Your task to perform on an android device: turn on wifi Image 0: 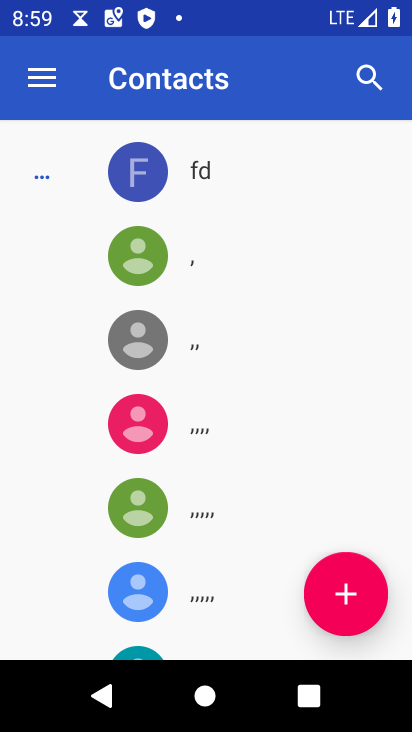
Step 0: press home button
Your task to perform on an android device: turn on wifi Image 1: 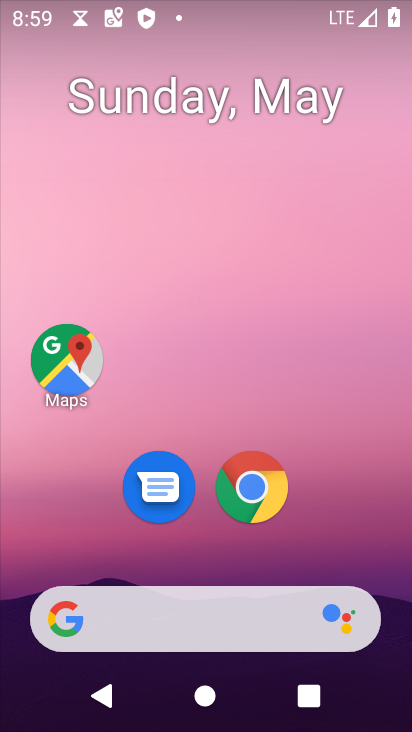
Step 1: drag from (383, 525) to (346, 93)
Your task to perform on an android device: turn on wifi Image 2: 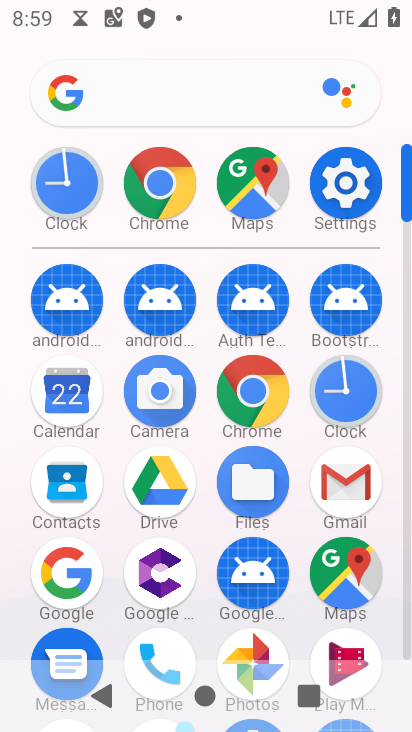
Step 2: click (338, 166)
Your task to perform on an android device: turn on wifi Image 3: 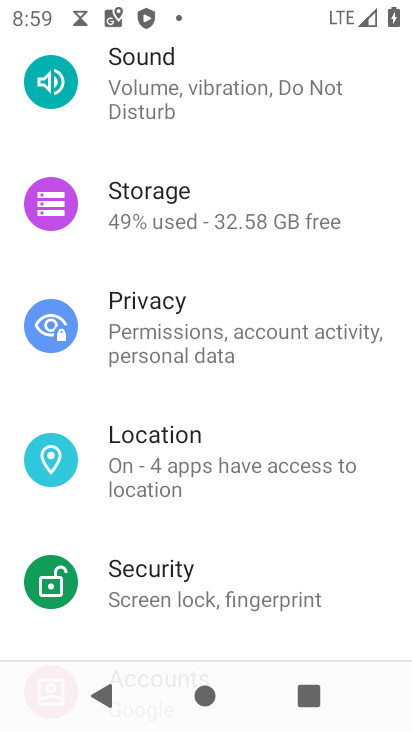
Step 3: drag from (305, 234) to (260, 638)
Your task to perform on an android device: turn on wifi Image 4: 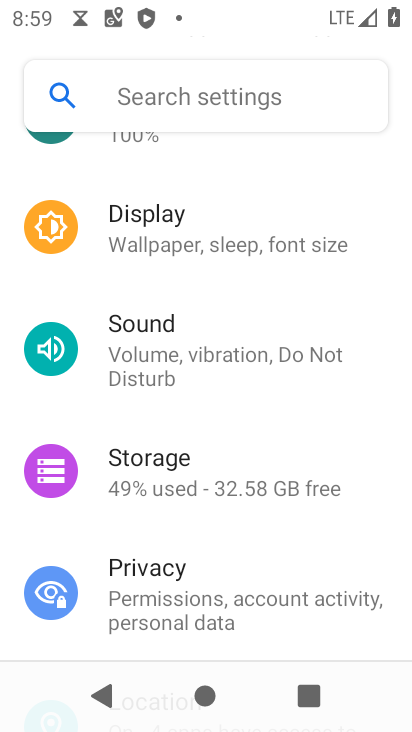
Step 4: drag from (234, 262) to (242, 605)
Your task to perform on an android device: turn on wifi Image 5: 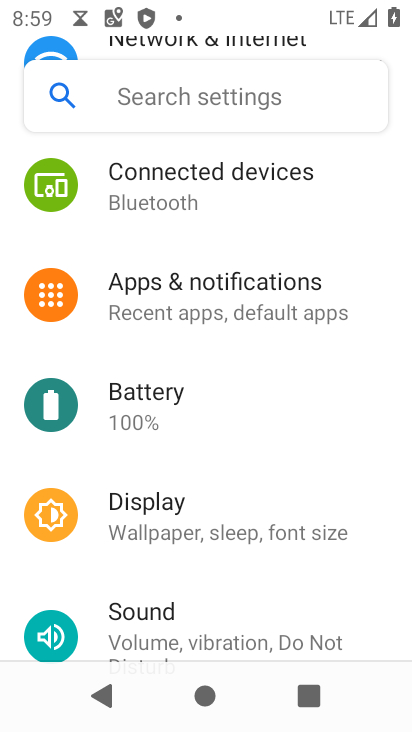
Step 5: click (320, 517)
Your task to perform on an android device: turn on wifi Image 6: 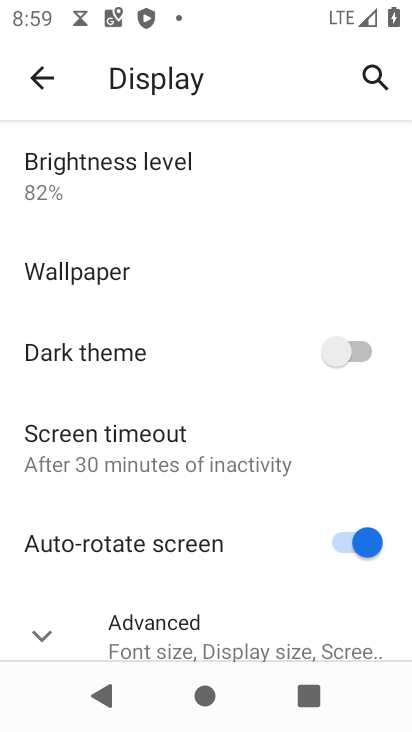
Step 6: drag from (225, 178) to (264, 545)
Your task to perform on an android device: turn on wifi Image 7: 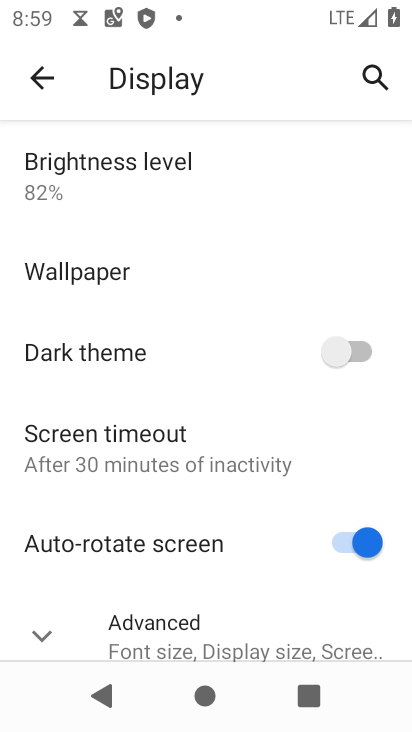
Step 7: click (61, 75)
Your task to perform on an android device: turn on wifi Image 8: 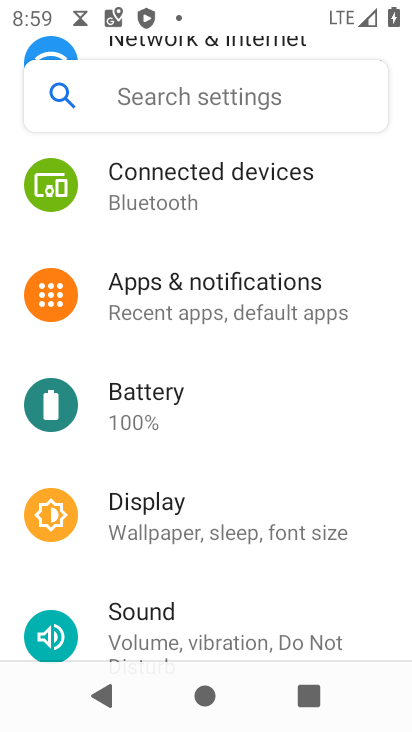
Step 8: drag from (174, 239) to (225, 584)
Your task to perform on an android device: turn on wifi Image 9: 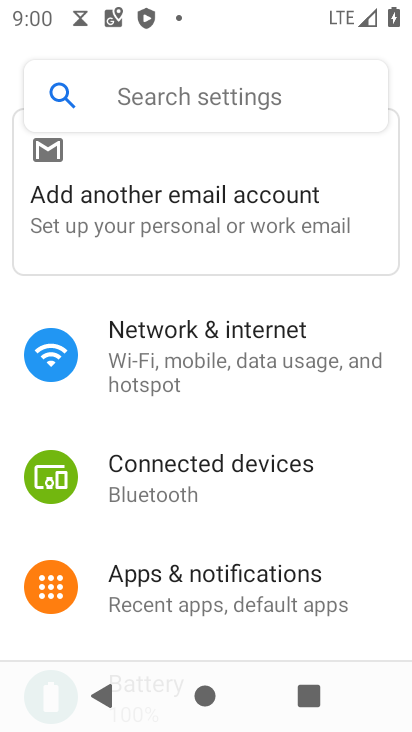
Step 9: click (225, 382)
Your task to perform on an android device: turn on wifi Image 10: 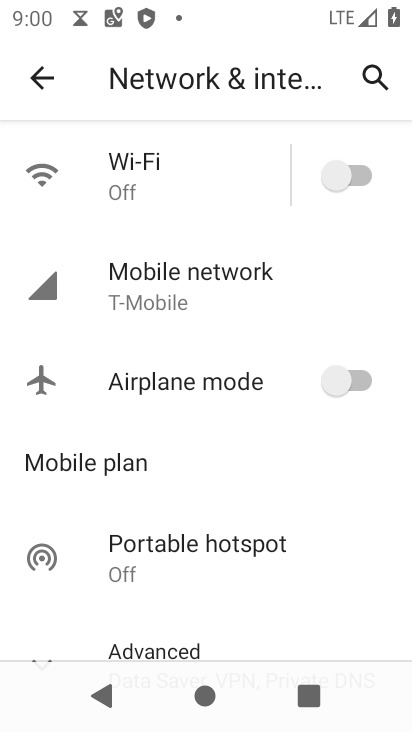
Step 10: click (358, 182)
Your task to perform on an android device: turn on wifi Image 11: 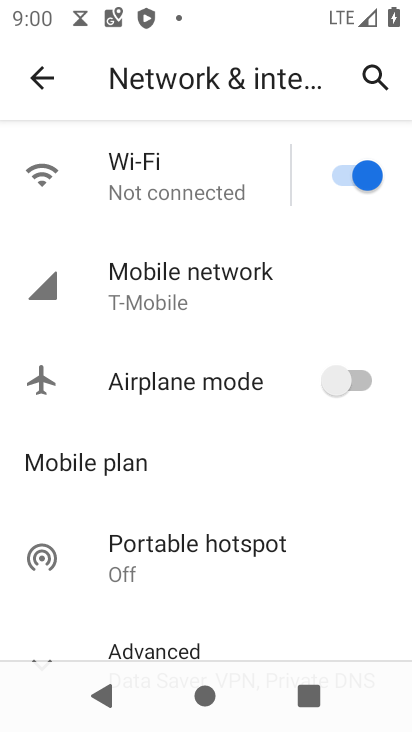
Step 11: task complete